Your task to perform on an android device: turn off picture-in-picture Image 0: 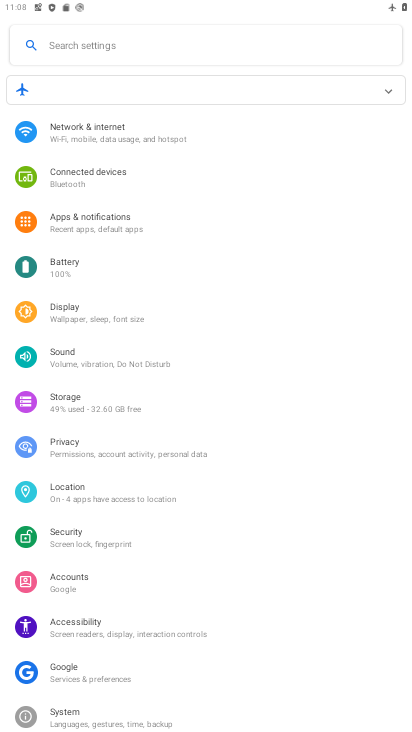
Step 0: press home button
Your task to perform on an android device: turn off picture-in-picture Image 1: 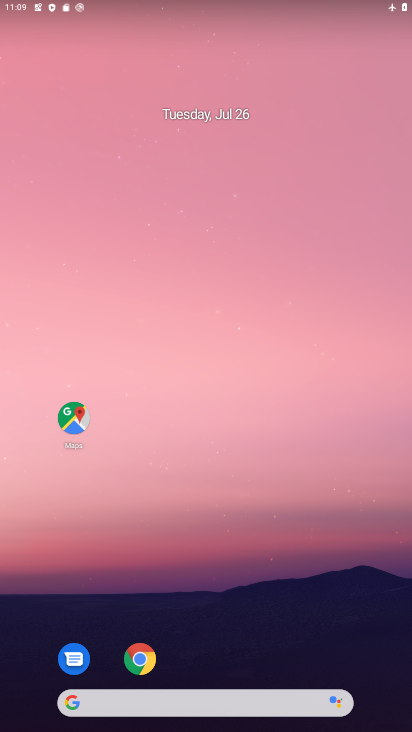
Step 1: click (140, 660)
Your task to perform on an android device: turn off picture-in-picture Image 2: 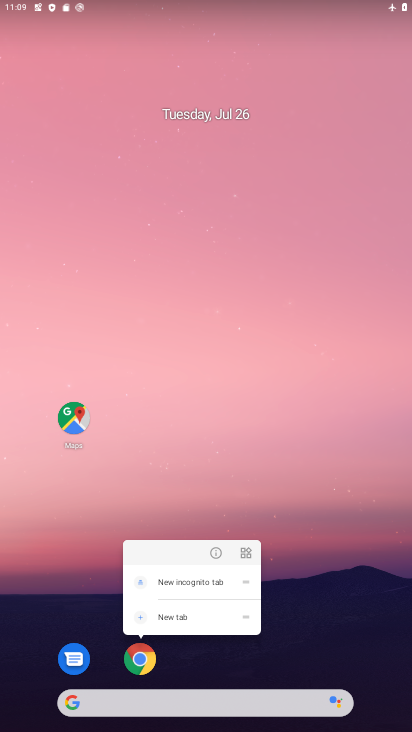
Step 2: click (218, 551)
Your task to perform on an android device: turn off picture-in-picture Image 3: 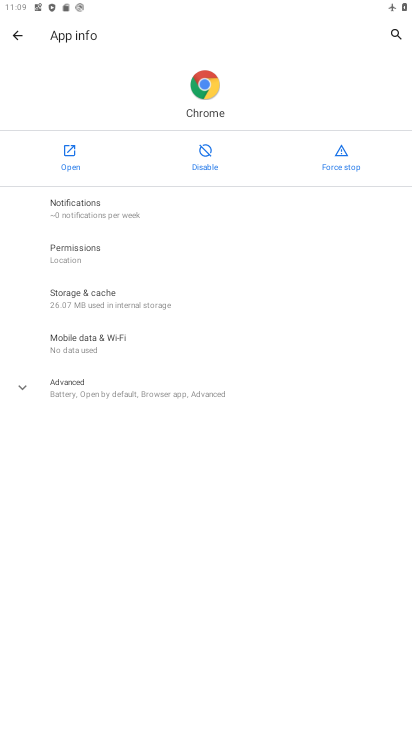
Step 3: click (153, 394)
Your task to perform on an android device: turn off picture-in-picture Image 4: 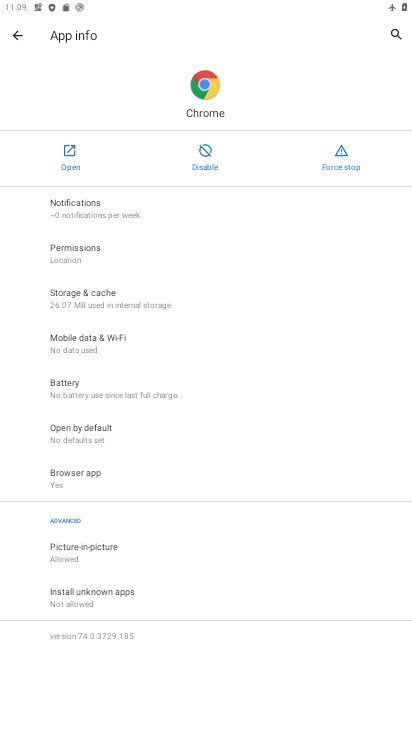
Step 4: click (105, 545)
Your task to perform on an android device: turn off picture-in-picture Image 5: 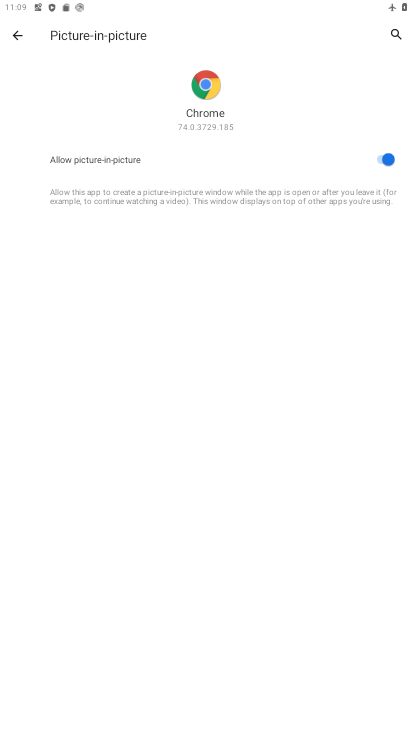
Step 5: click (384, 163)
Your task to perform on an android device: turn off picture-in-picture Image 6: 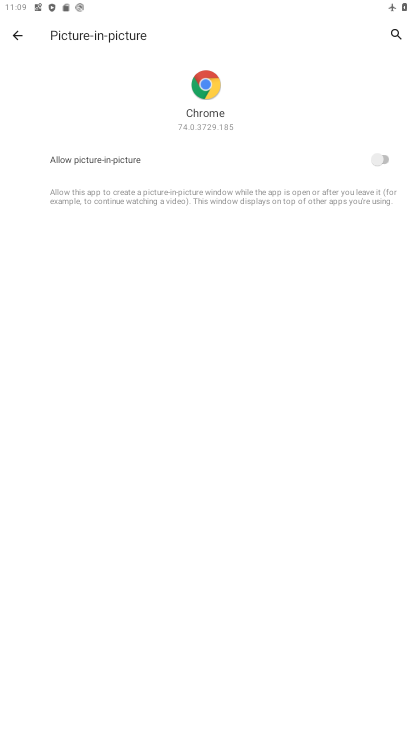
Step 6: task complete